Your task to perform on an android device: change alarm snooze length Image 0: 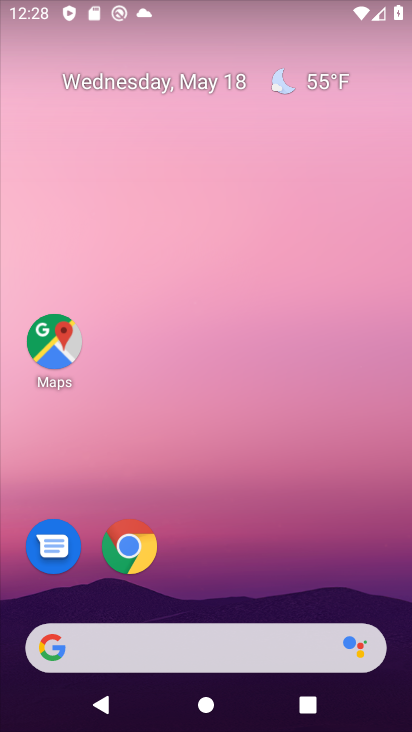
Step 0: drag from (357, 514) to (383, 32)
Your task to perform on an android device: change alarm snooze length Image 1: 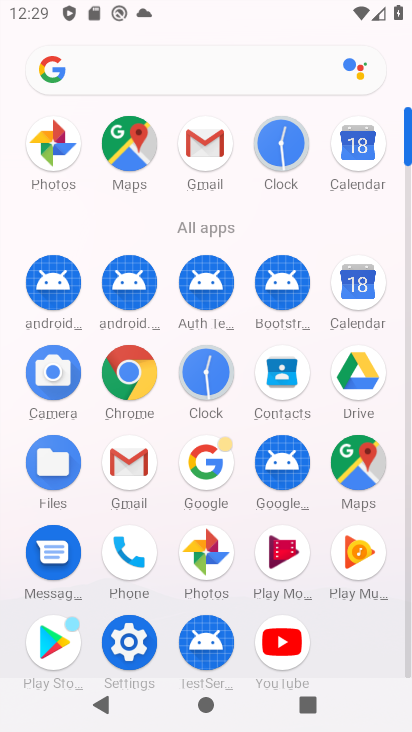
Step 1: click (203, 372)
Your task to perform on an android device: change alarm snooze length Image 2: 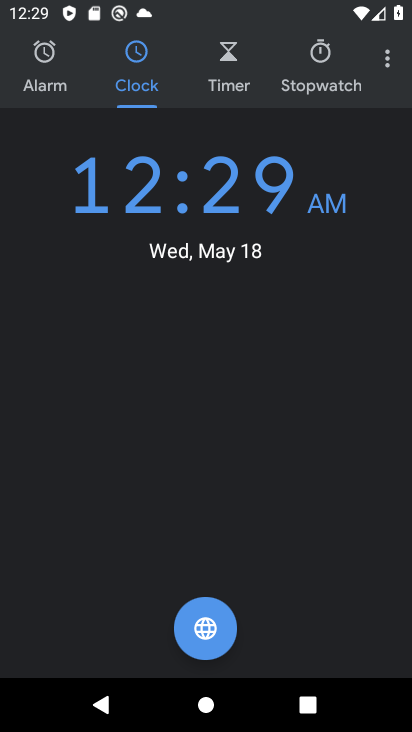
Step 2: click (396, 71)
Your task to perform on an android device: change alarm snooze length Image 3: 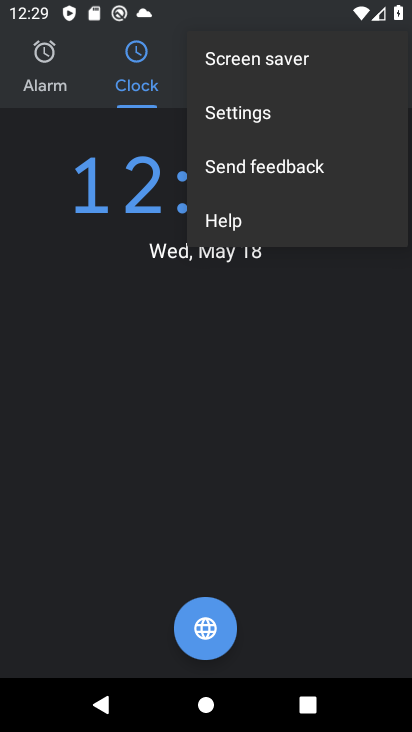
Step 3: click (304, 122)
Your task to perform on an android device: change alarm snooze length Image 4: 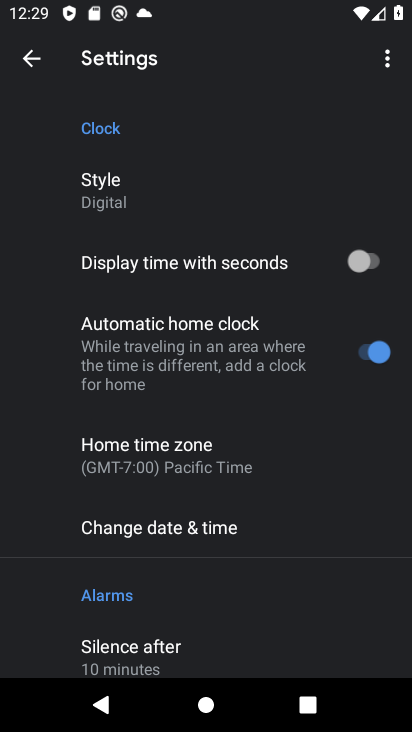
Step 4: drag from (250, 556) to (231, 217)
Your task to perform on an android device: change alarm snooze length Image 5: 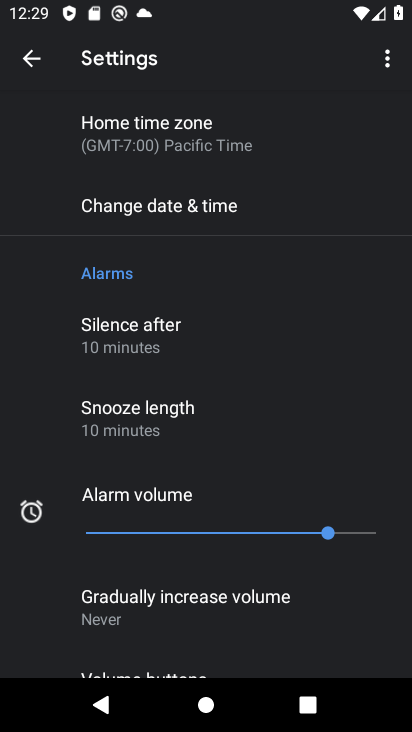
Step 5: click (197, 419)
Your task to perform on an android device: change alarm snooze length Image 6: 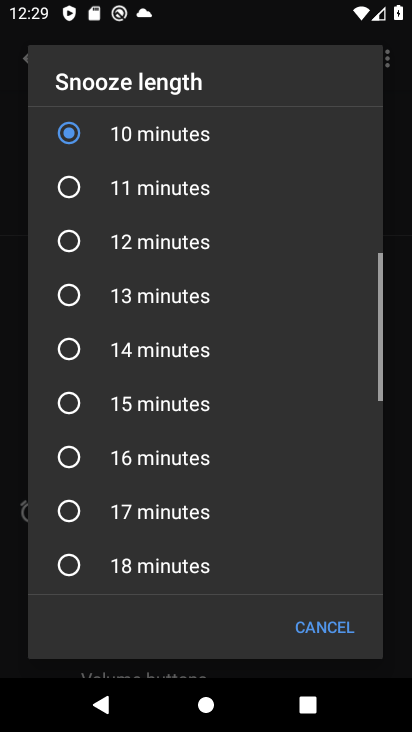
Step 6: click (198, 418)
Your task to perform on an android device: change alarm snooze length Image 7: 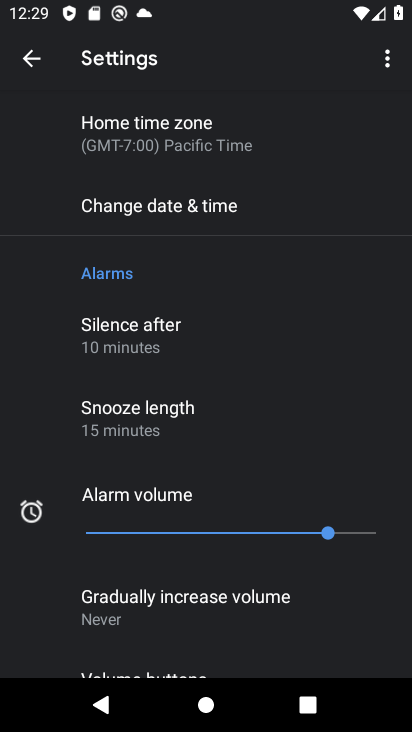
Step 7: task complete